Your task to perform on an android device: Go to ESPN.com Image 0: 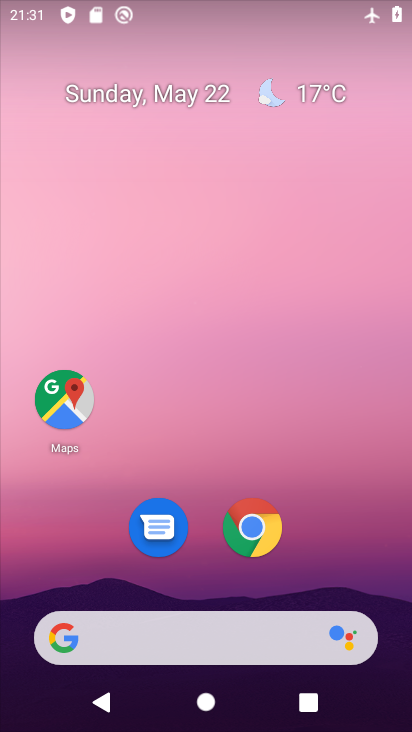
Step 0: click (251, 525)
Your task to perform on an android device: Go to ESPN.com Image 1: 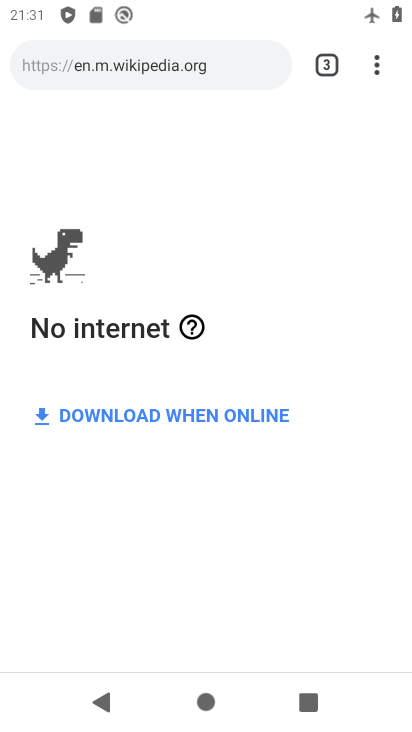
Step 1: click (367, 60)
Your task to perform on an android device: Go to ESPN.com Image 2: 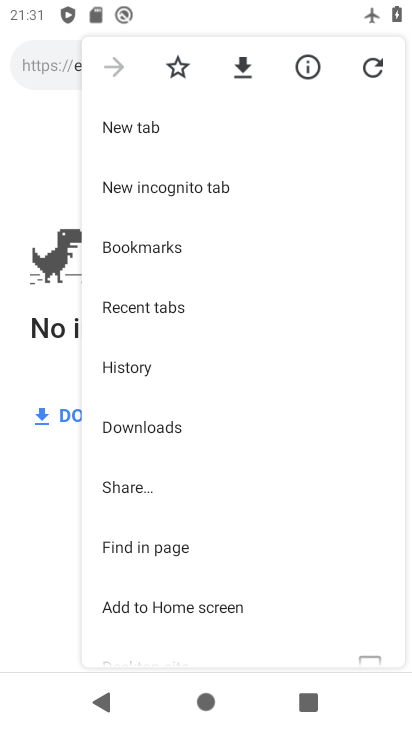
Step 2: click (150, 115)
Your task to perform on an android device: Go to ESPN.com Image 3: 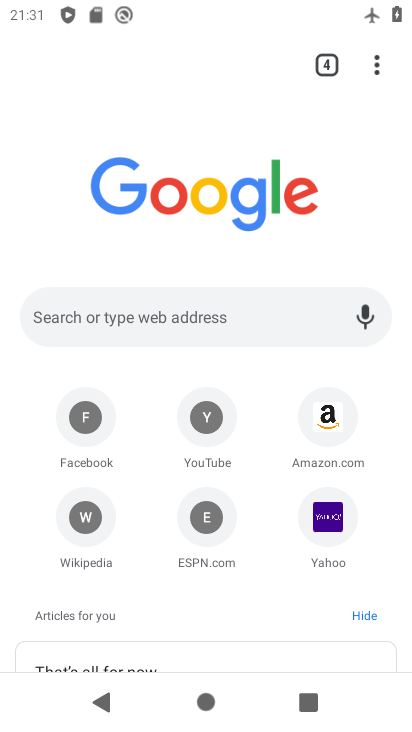
Step 3: click (206, 520)
Your task to perform on an android device: Go to ESPN.com Image 4: 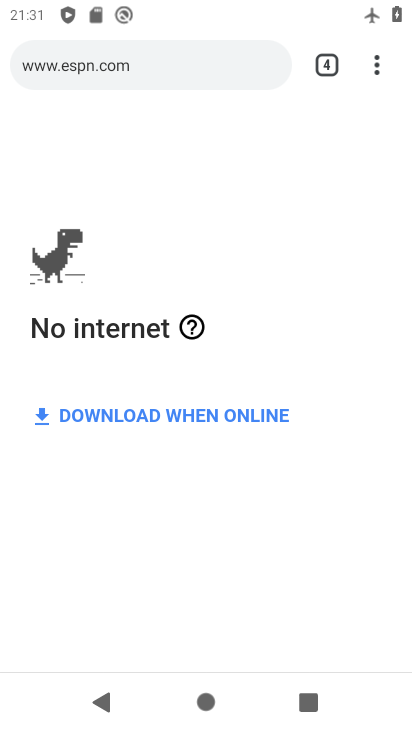
Step 4: click (196, 520)
Your task to perform on an android device: Go to ESPN.com Image 5: 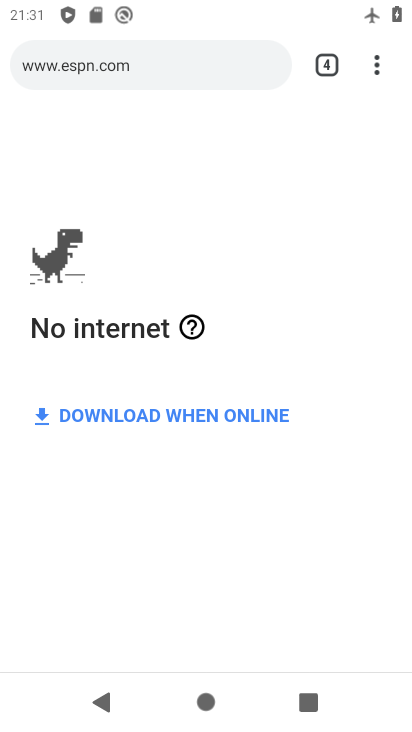
Step 5: task complete